Your task to perform on an android device: Play the last video I watched on Youtube Image 0: 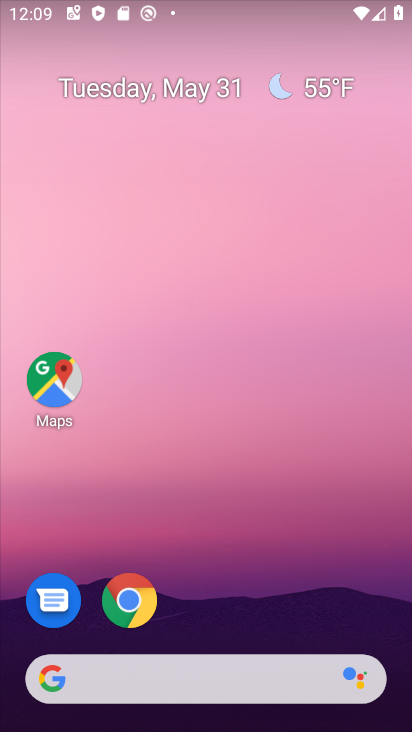
Step 0: press home button
Your task to perform on an android device: Play the last video I watched on Youtube Image 1: 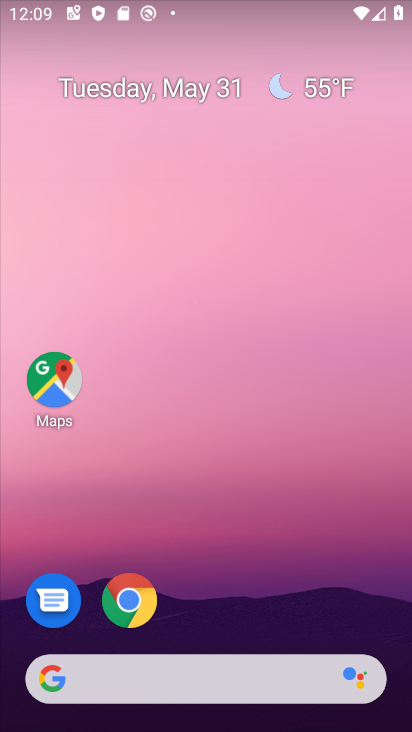
Step 1: drag from (338, 587) to (340, 109)
Your task to perform on an android device: Play the last video I watched on Youtube Image 2: 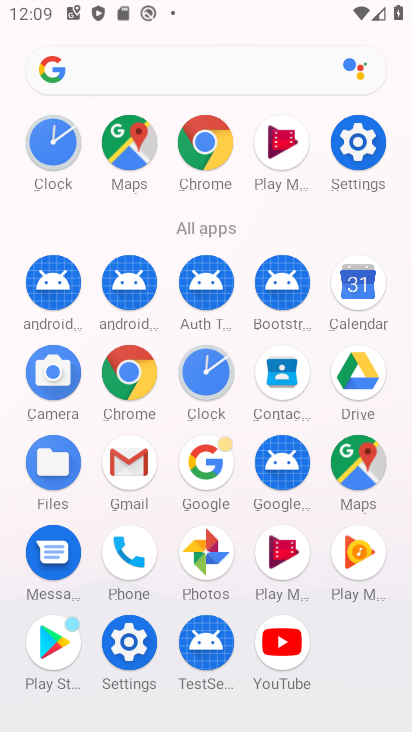
Step 2: click (287, 646)
Your task to perform on an android device: Play the last video I watched on Youtube Image 3: 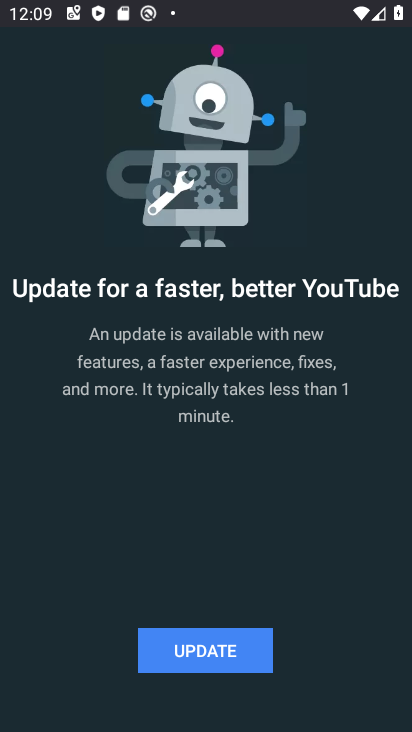
Step 3: click (234, 651)
Your task to perform on an android device: Play the last video I watched on Youtube Image 4: 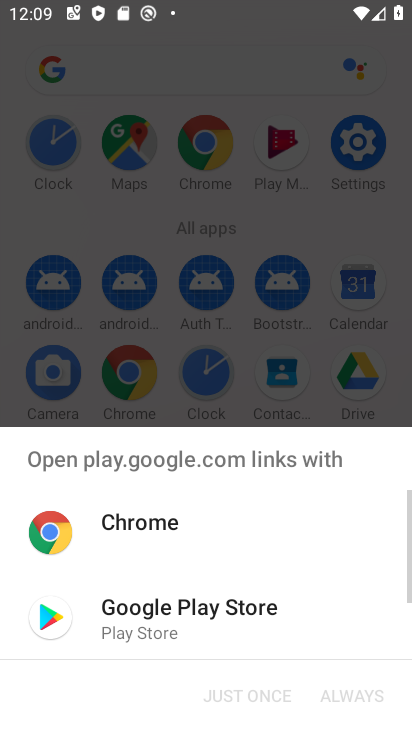
Step 4: click (239, 614)
Your task to perform on an android device: Play the last video I watched on Youtube Image 5: 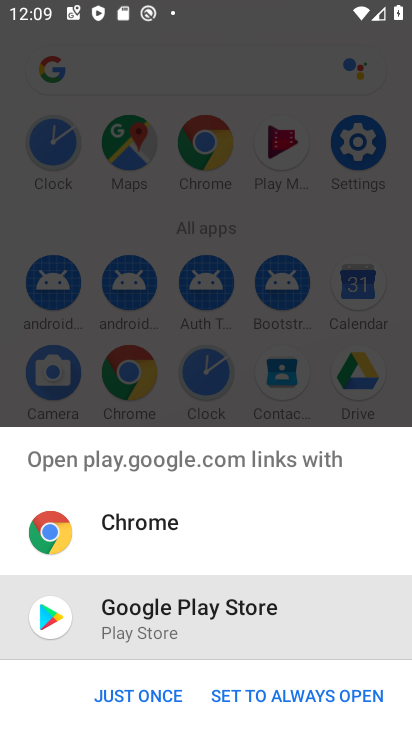
Step 5: click (158, 697)
Your task to perform on an android device: Play the last video I watched on Youtube Image 6: 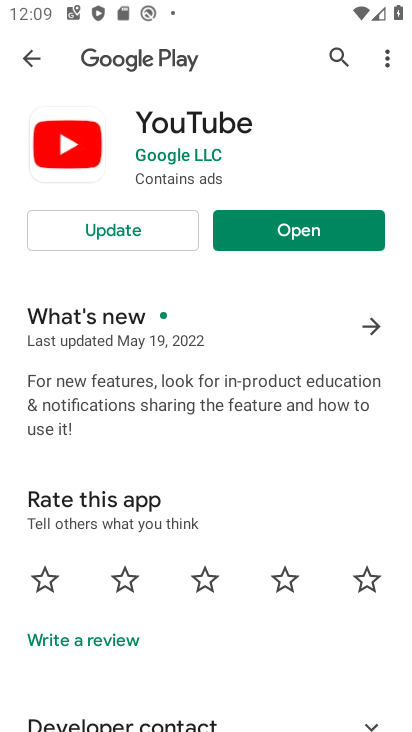
Step 6: click (145, 230)
Your task to perform on an android device: Play the last video I watched on Youtube Image 7: 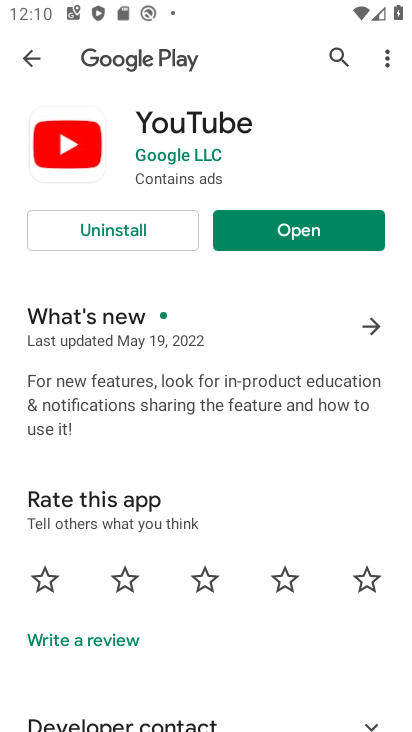
Step 7: click (339, 225)
Your task to perform on an android device: Play the last video I watched on Youtube Image 8: 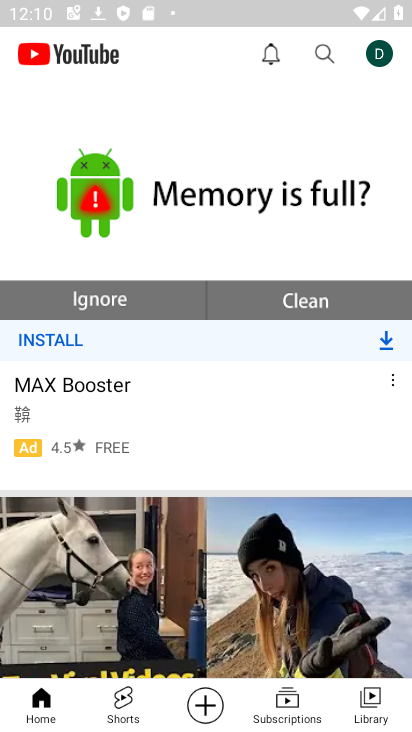
Step 8: click (375, 696)
Your task to perform on an android device: Play the last video I watched on Youtube Image 9: 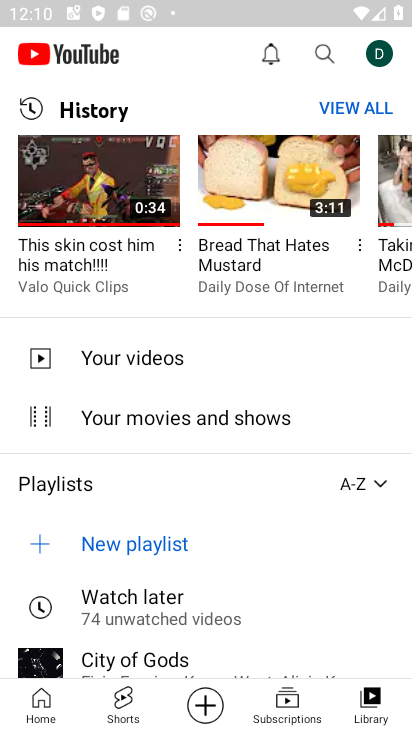
Step 9: click (86, 173)
Your task to perform on an android device: Play the last video I watched on Youtube Image 10: 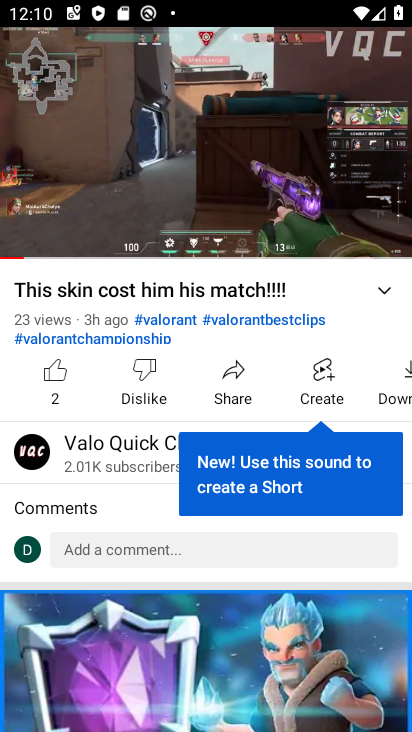
Step 10: task complete